Your task to perform on an android device: open a bookmark in the chrome app Image 0: 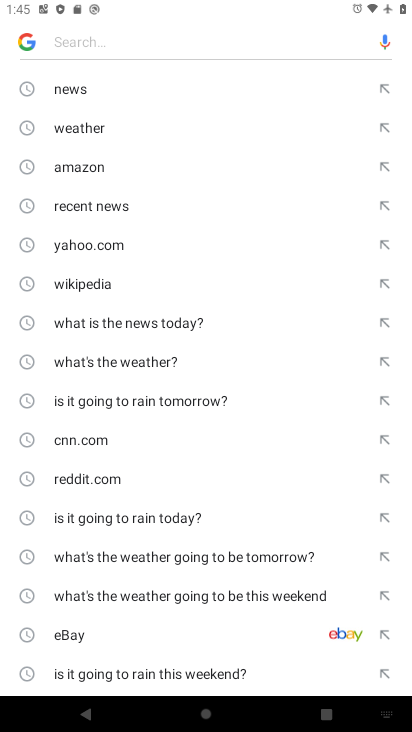
Step 0: press home button
Your task to perform on an android device: open a bookmark in the chrome app Image 1: 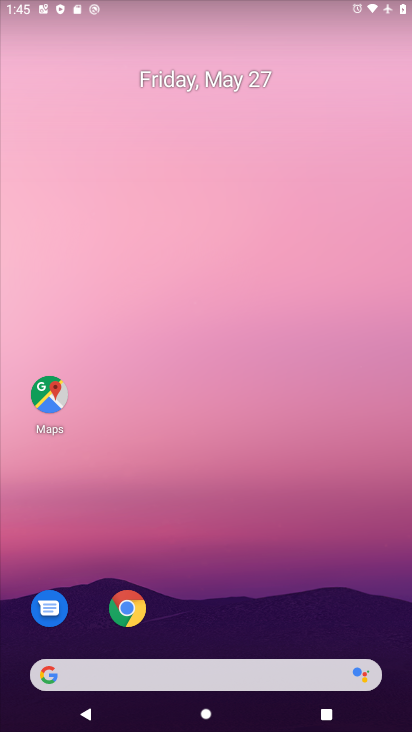
Step 1: click (402, 416)
Your task to perform on an android device: open a bookmark in the chrome app Image 2: 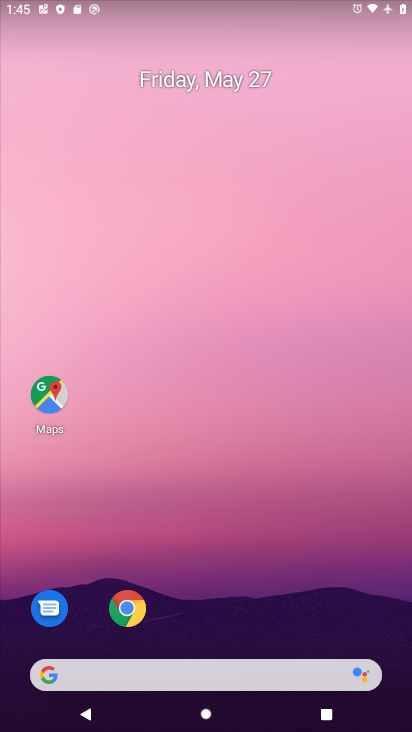
Step 2: click (125, 608)
Your task to perform on an android device: open a bookmark in the chrome app Image 3: 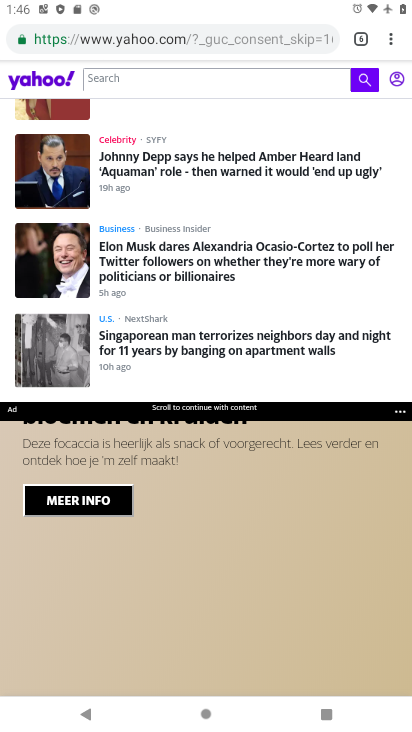
Step 3: task complete